Your task to perform on an android device: Open the calendar and show me this week's events? Image 0: 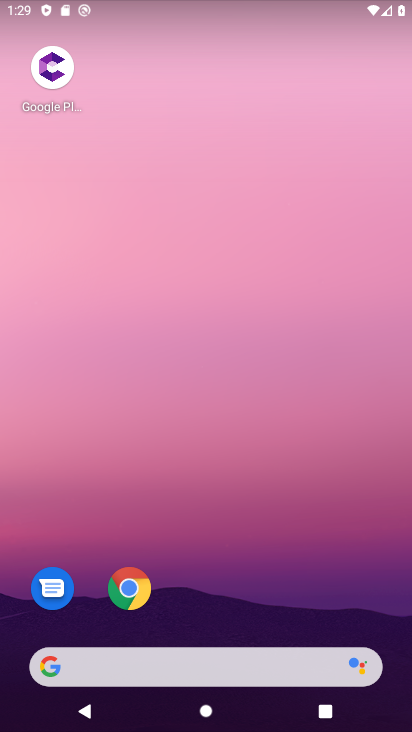
Step 0: press home button
Your task to perform on an android device: Open the calendar and show me this week's events? Image 1: 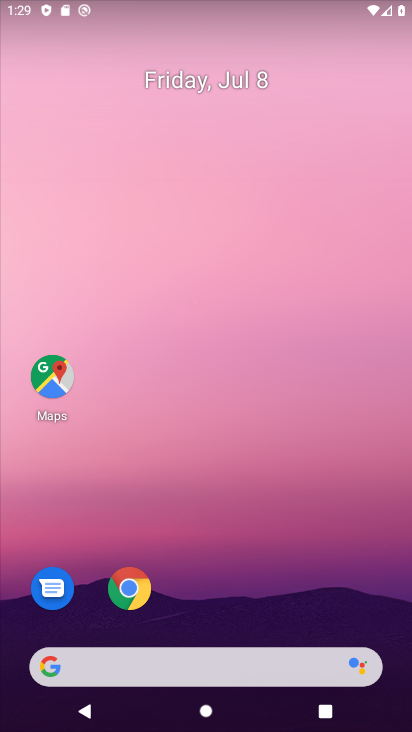
Step 1: drag from (323, 582) to (321, 0)
Your task to perform on an android device: Open the calendar and show me this week's events? Image 2: 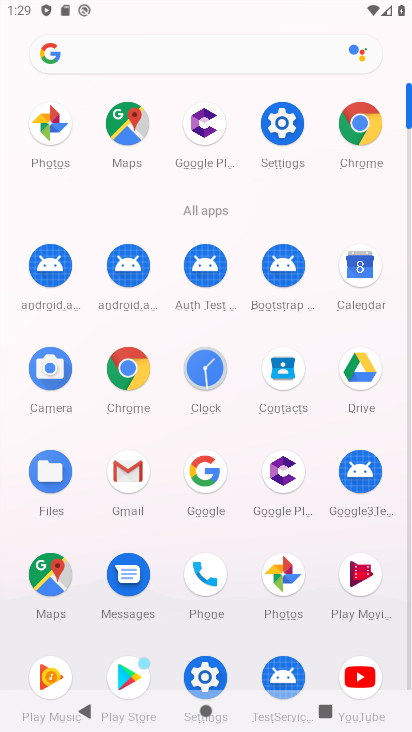
Step 2: click (354, 275)
Your task to perform on an android device: Open the calendar and show me this week's events? Image 3: 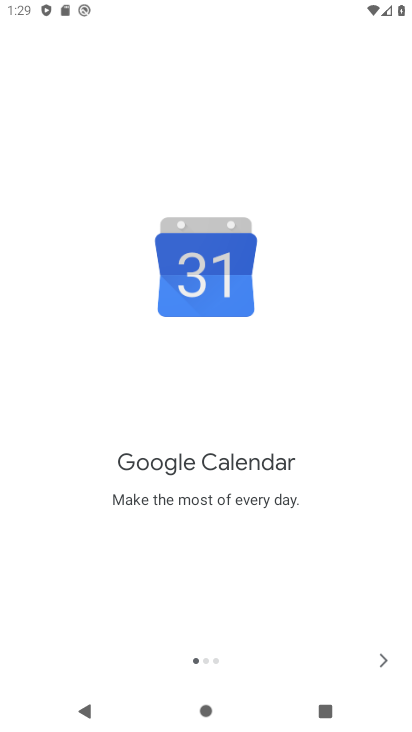
Step 3: click (379, 661)
Your task to perform on an android device: Open the calendar and show me this week's events? Image 4: 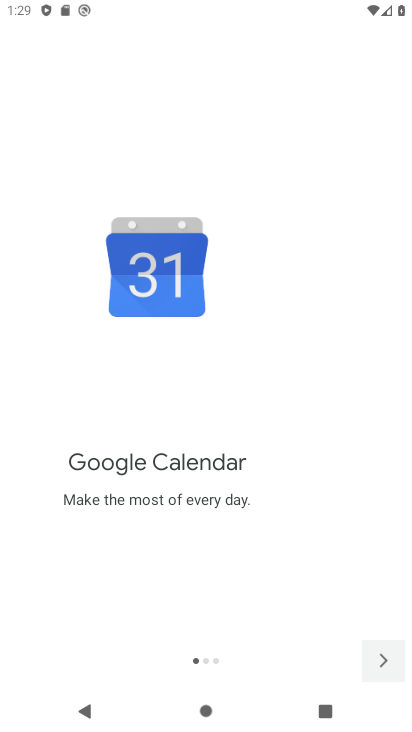
Step 4: click (379, 661)
Your task to perform on an android device: Open the calendar and show me this week's events? Image 5: 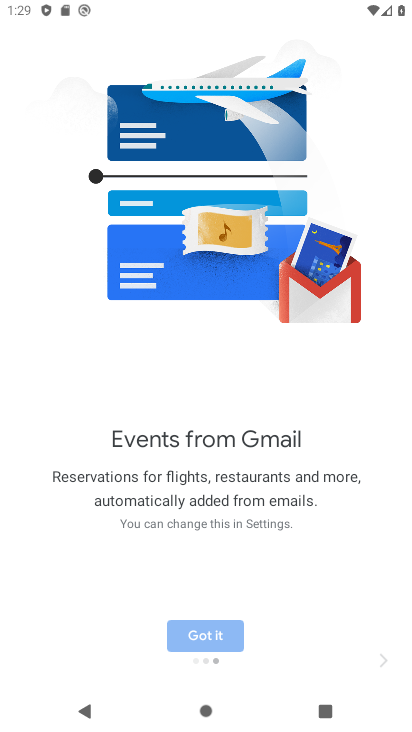
Step 5: click (379, 661)
Your task to perform on an android device: Open the calendar and show me this week's events? Image 6: 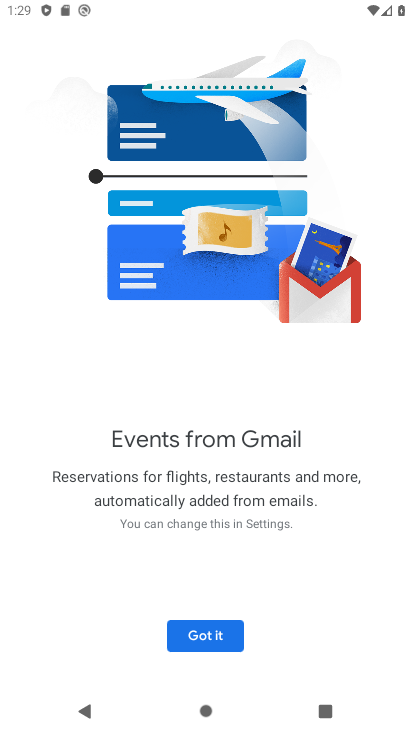
Step 6: click (203, 627)
Your task to perform on an android device: Open the calendar and show me this week's events? Image 7: 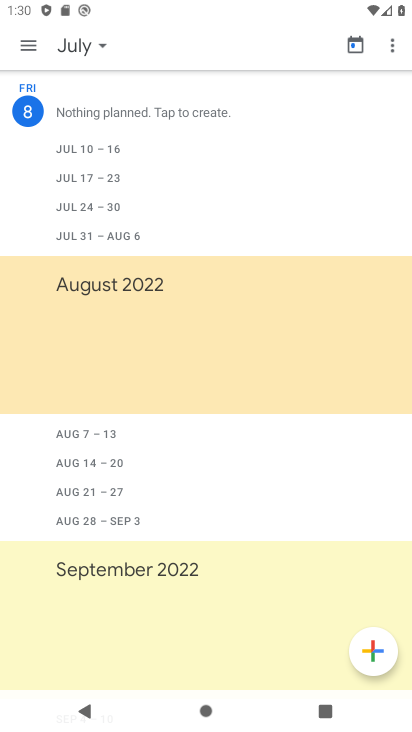
Step 7: task complete